Your task to perform on an android device: Open Google Maps Image 0: 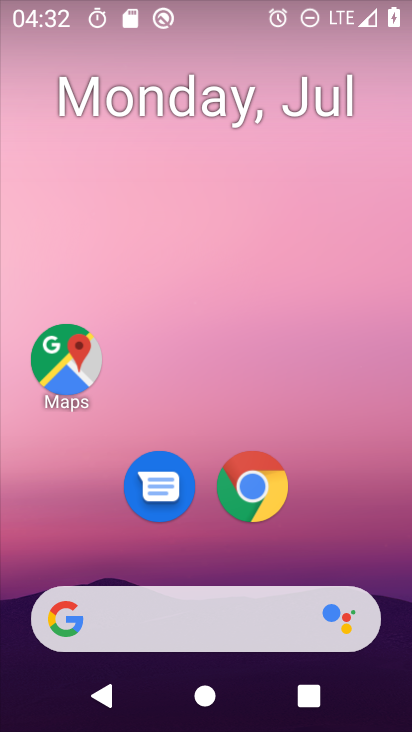
Step 0: click (67, 366)
Your task to perform on an android device: Open Google Maps Image 1: 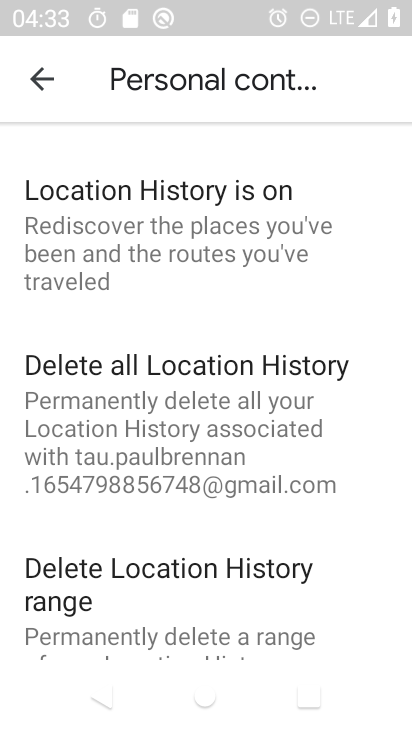
Step 1: click (38, 82)
Your task to perform on an android device: Open Google Maps Image 2: 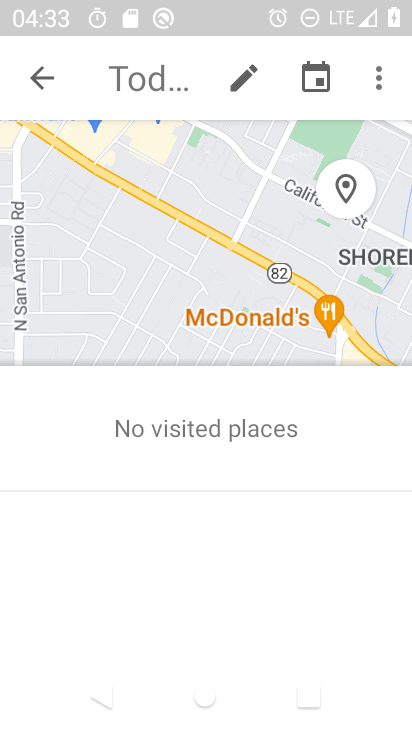
Step 2: task complete